Your task to perform on an android device: change notification settings in the gmail app Image 0: 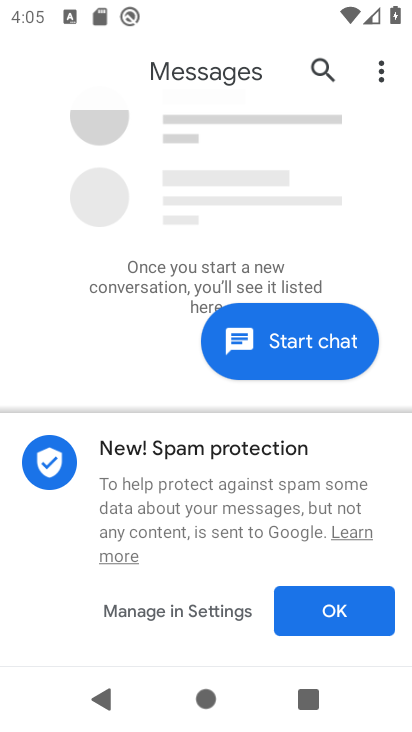
Step 0: press home button
Your task to perform on an android device: change notification settings in the gmail app Image 1: 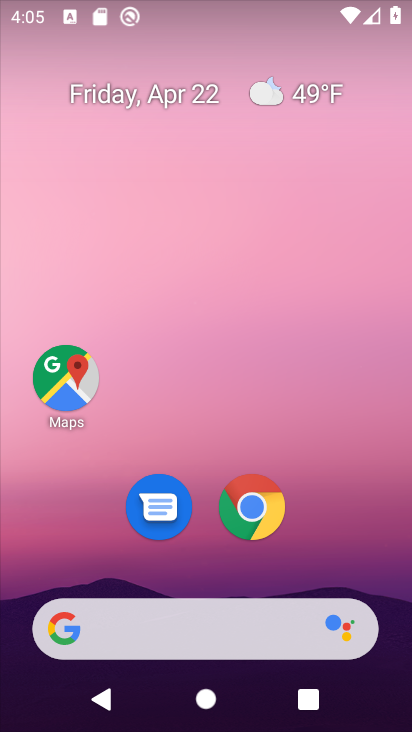
Step 1: drag from (364, 573) to (250, 5)
Your task to perform on an android device: change notification settings in the gmail app Image 2: 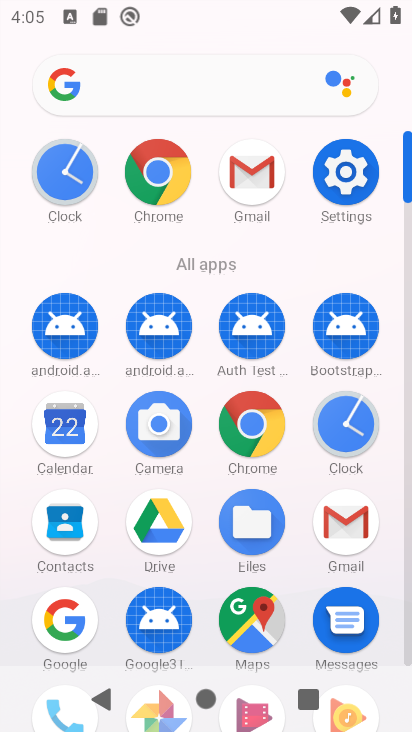
Step 2: click (409, 643)
Your task to perform on an android device: change notification settings in the gmail app Image 3: 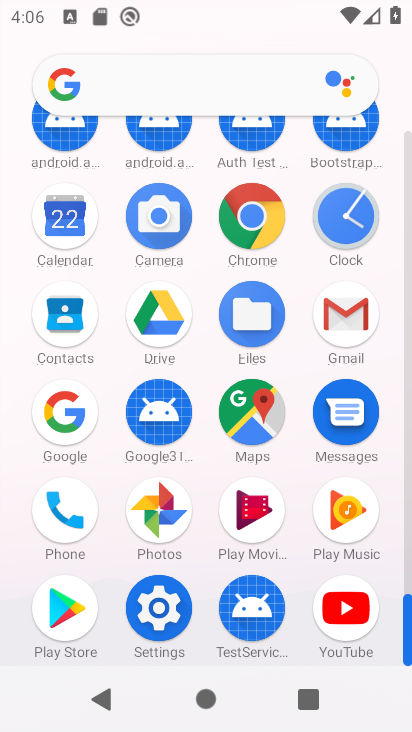
Step 3: click (344, 313)
Your task to perform on an android device: change notification settings in the gmail app Image 4: 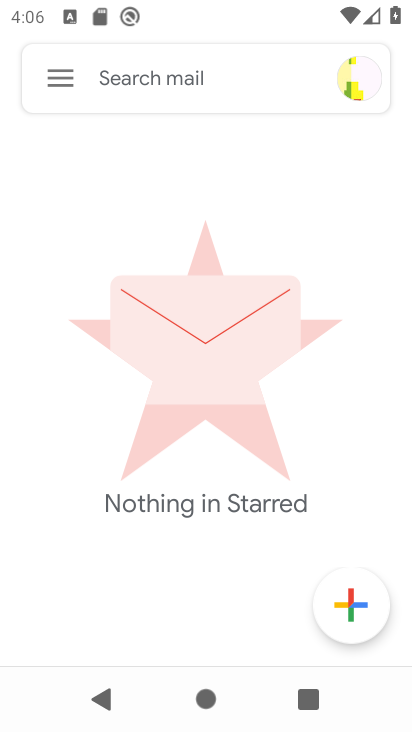
Step 4: click (56, 77)
Your task to perform on an android device: change notification settings in the gmail app Image 5: 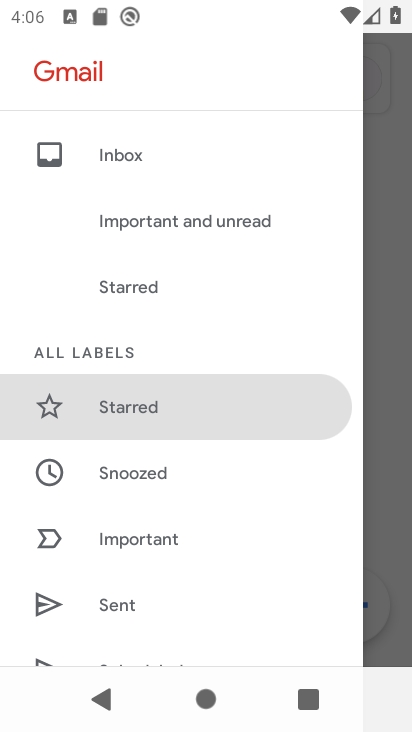
Step 5: drag from (217, 617) to (283, 246)
Your task to perform on an android device: change notification settings in the gmail app Image 6: 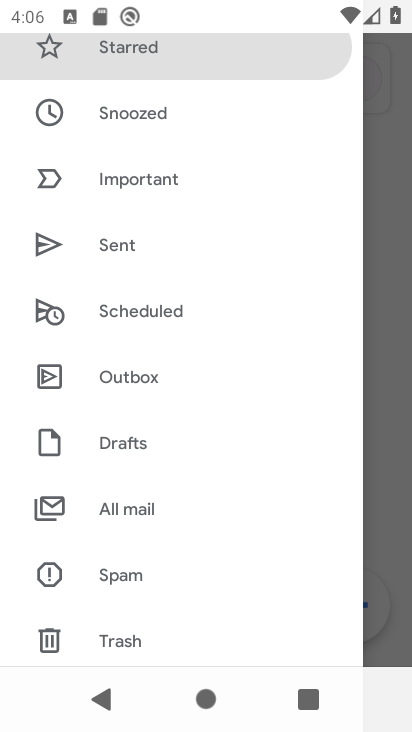
Step 6: drag from (250, 645) to (234, 104)
Your task to perform on an android device: change notification settings in the gmail app Image 7: 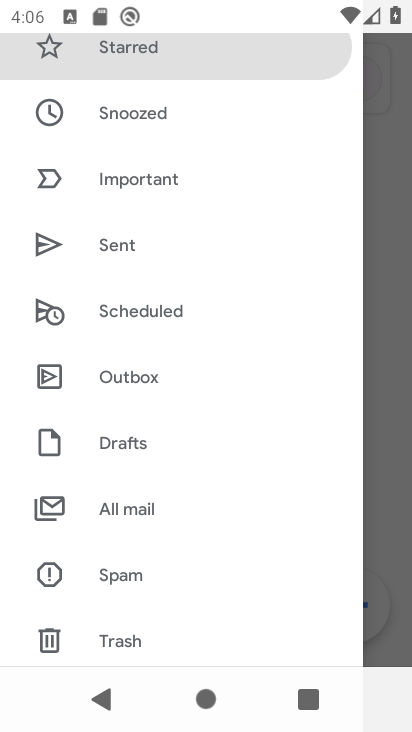
Step 7: drag from (244, 607) to (277, 190)
Your task to perform on an android device: change notification settings in the gmail app Image 8: 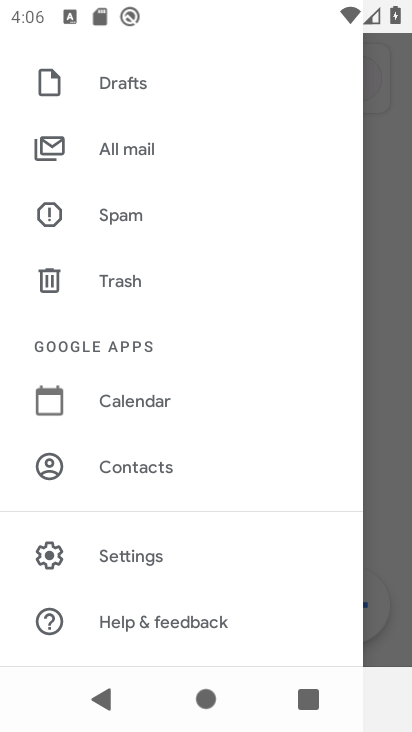
Step 8: click (138, 561)
Your task to perform on an android device: change notification settings in the gmail app Image 9: 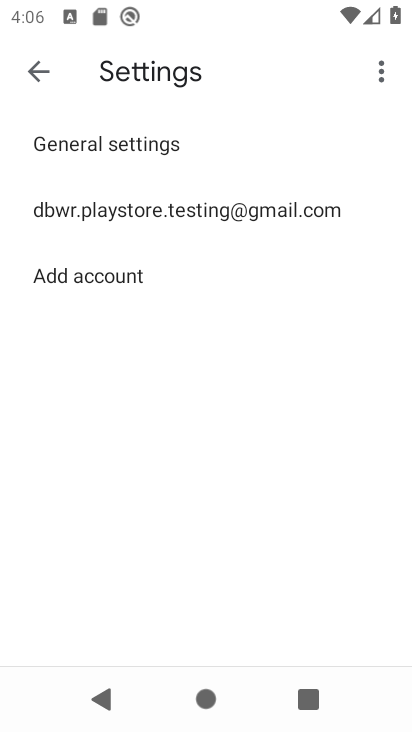
Step 9: click (180, 207)
Your task to perform on an android device: change notification settings in the gmail app Image 10: 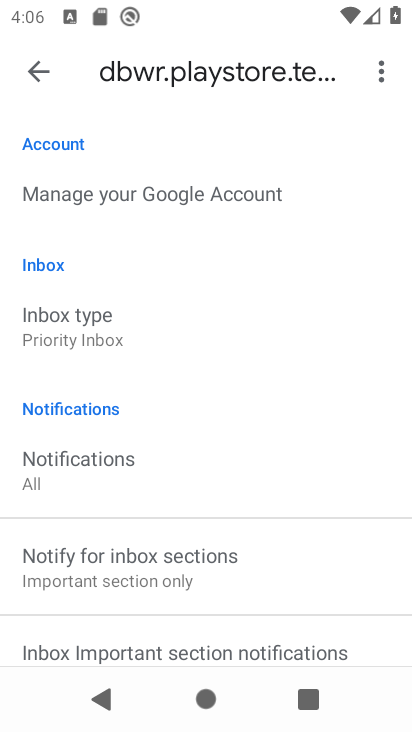
Step 10: drag from (185, 509) to (196, 235)
Your task to perform on an android device: change notification settings in the gmail app Image 11: 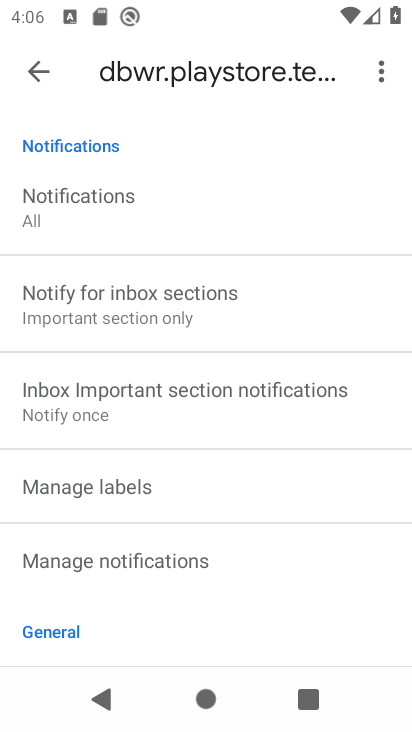
Step 11: click (135, 555)
Your task to perform on an android device: change notification settings in the gmail app Image 12: 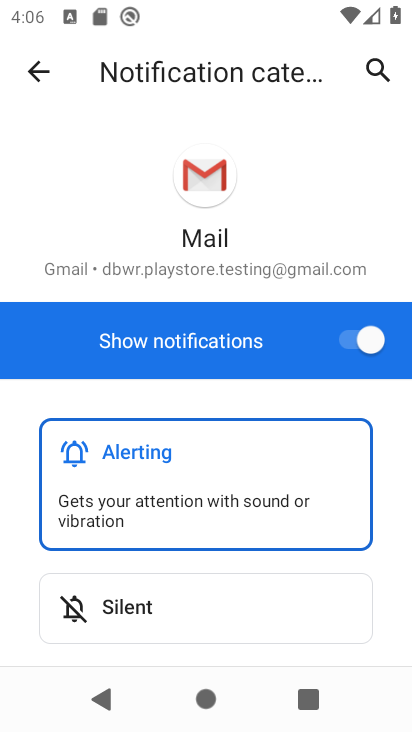
Step 12: drag from (348, 579) to (317, 188)
Your task to perform on an android device: change notification settings in the gmail app Image 13: 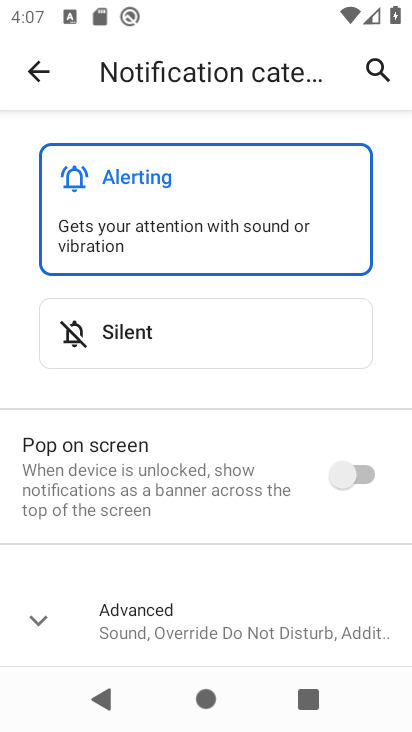
Step 13: click (36, 618)
Your task to perform on an android device: change notification settings in the gmail app Image 14: 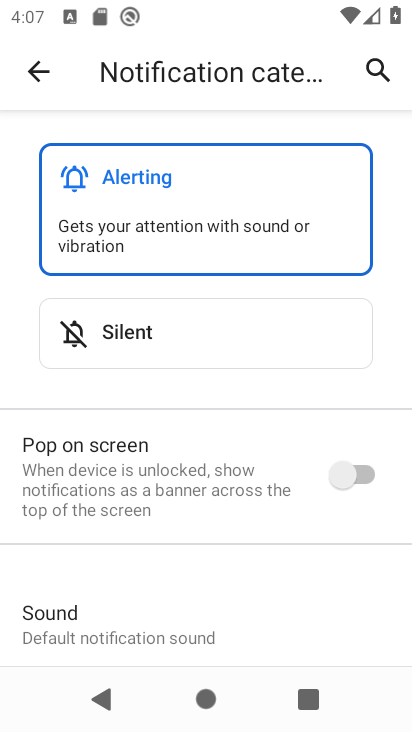
Step 14: drag from (268, 586) to (296, 203)
Your task to perform on an android device: change notification settings in the gmail app Image 15: 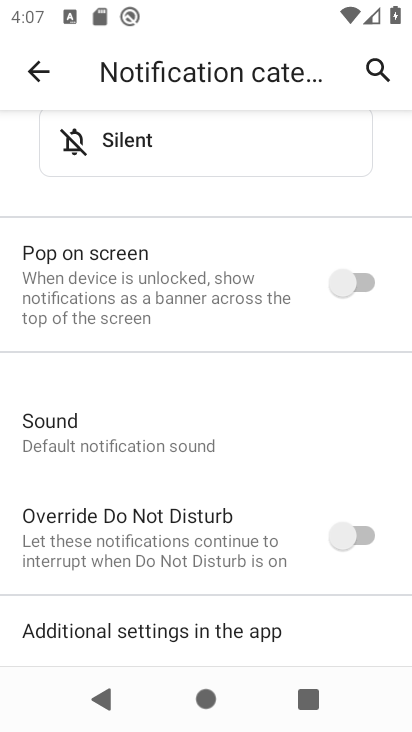
Step 15: drag from (243, 520) to (252, 194)
Your task to perform on an android device: change notification settings in the gmail app Image 16: 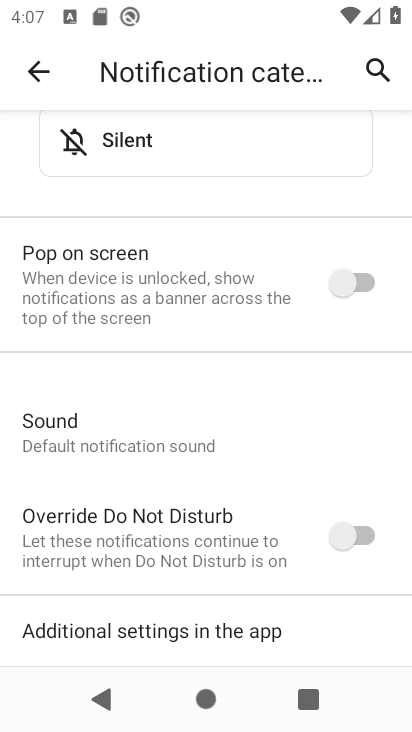
Step 16: click (351, 528)
Your task to perform on an android device: change notification settings in the gmail app Image 17: 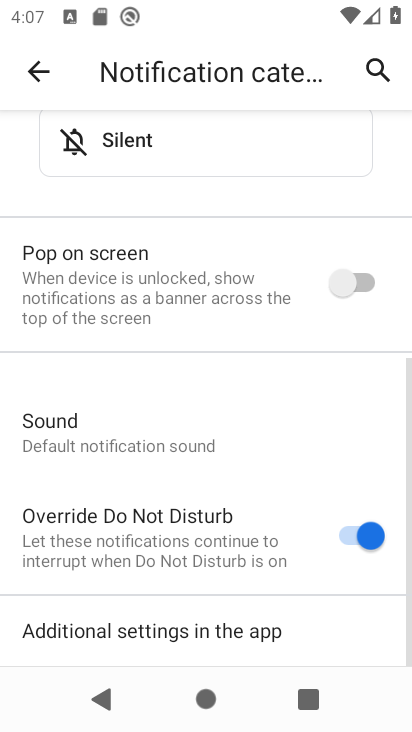
Step 17: click (358, 282)
Your task to perform on an android device: change notification settings in the gmail app Image 18: 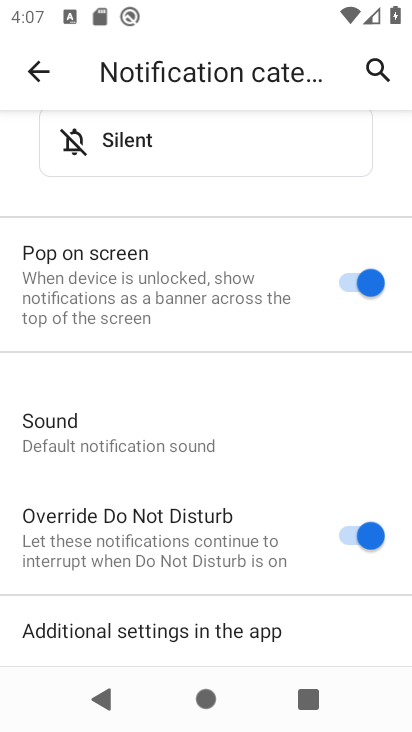
Step 18: task complete